Your task to perform on an android device: change the clock style Image 0: 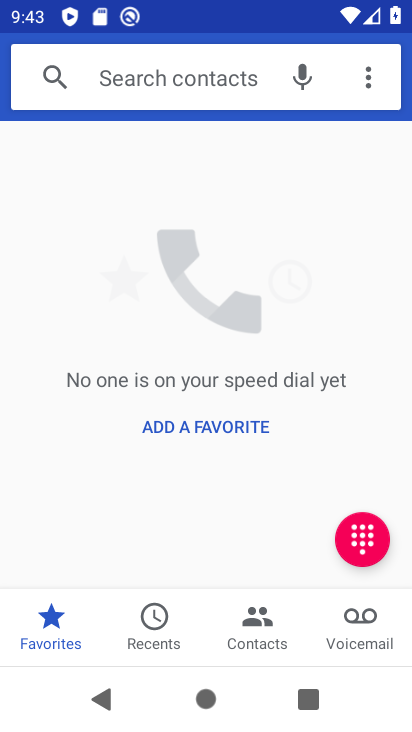
Step 0: press home button
Your task to perform on an android device: change the clock style Image 1: 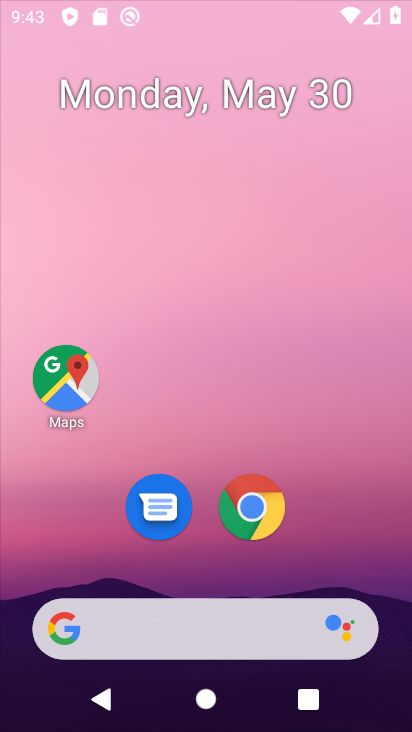
Step 1: drag from (146, 727) to (144, 104)
Your task to perform on an android device: change the clock style Image 2: 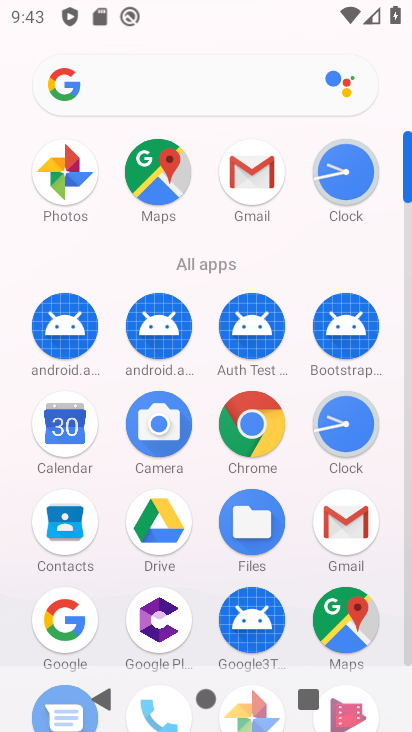
Step 2: click (354, 208)
Your task to perform on an android device: change the clock style Image 3: 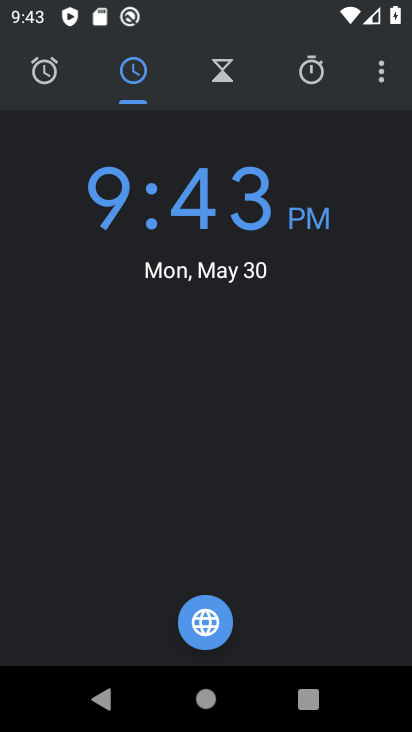
Step 3: click (391, 72)
Your task to perform on an android device: change the clock style Image 4: 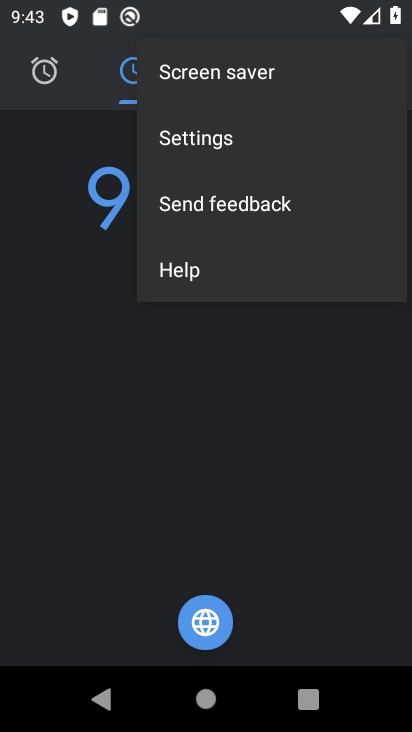
Step 4: click (352, 126)
Your task to perform on an android device: change the clock style Image 5: 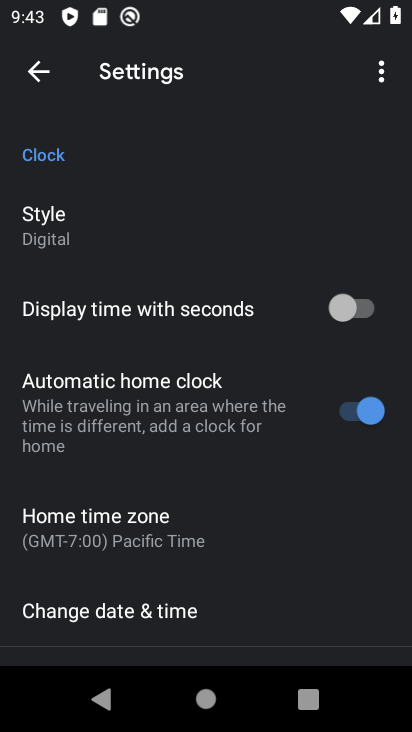
Step 5: click (110, 233)
Your task to perform on an android device: change the clock style Image 6: 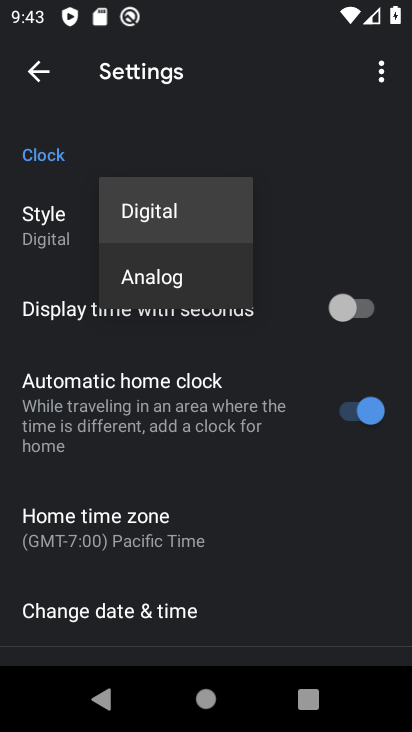
Step 6: click (152, 276)
Your task to perform on an android device: change the clock style Image 7: 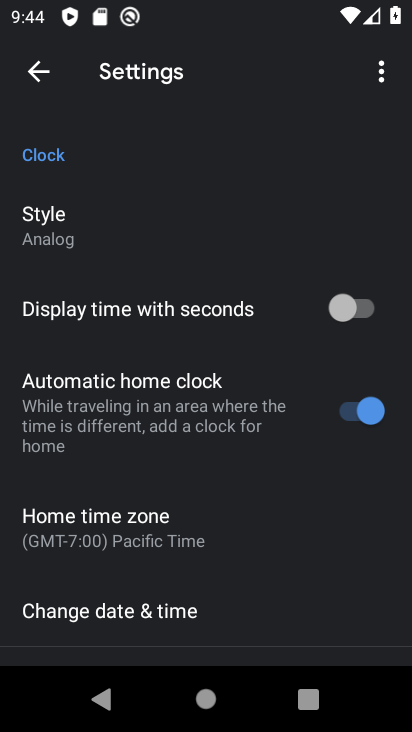
Step 7: task complete